Your task to perform on an android device: check the backup settings in the google photos Image 0: 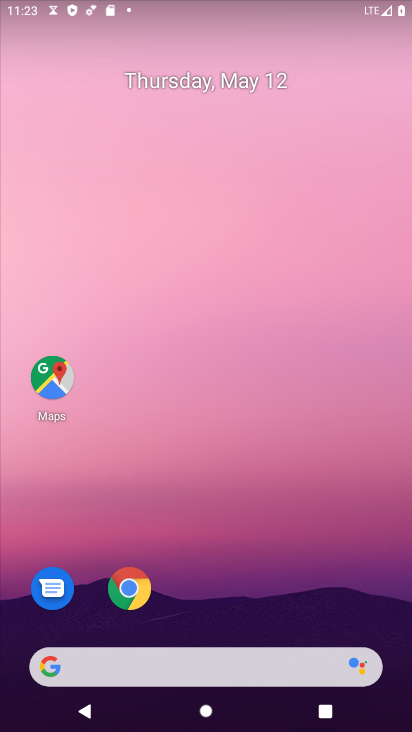
Step 0: drag from (211, 625) to (208, 364)
Your task to perform on an android device: check the backup settings in the google photos Image 1: 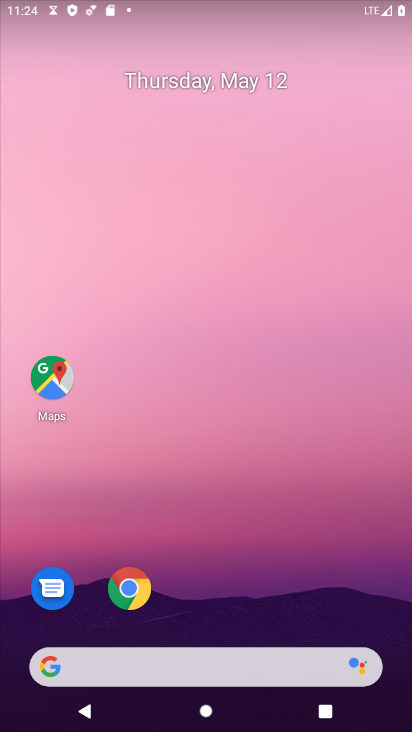
Step 1: drag from (210, 622) to (216, 159)
Your task to perform on an android device: check the backup settings in the google photos Image 2: 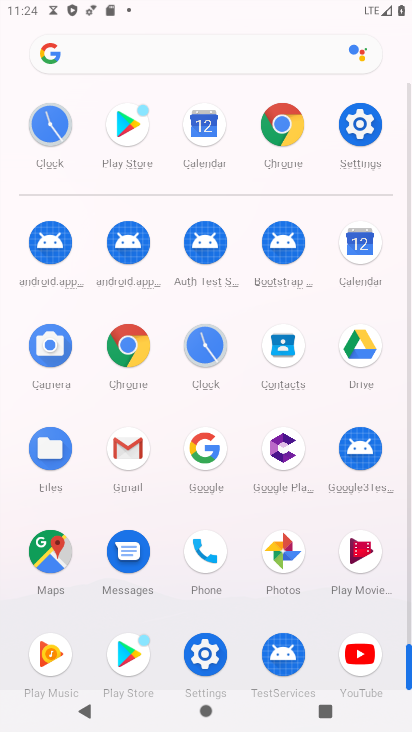
Step 2: click (275, 553)
Your task to perform on an android device: check the backup settings in the google photos Image 3: 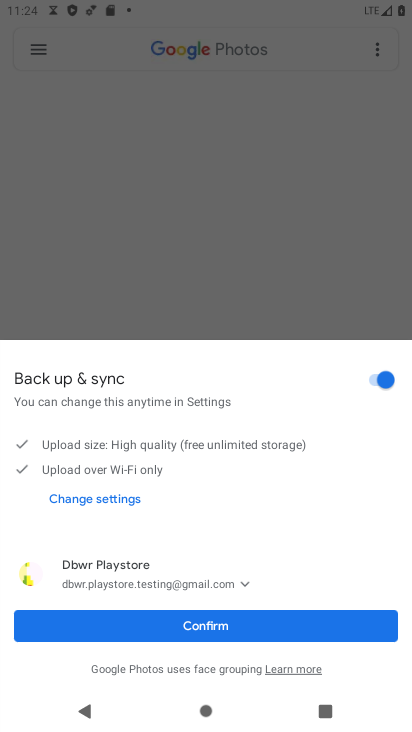
Step 3: click (190, 634)
Your task to perform on an android device: check the backup settings in the google photos Image 4: 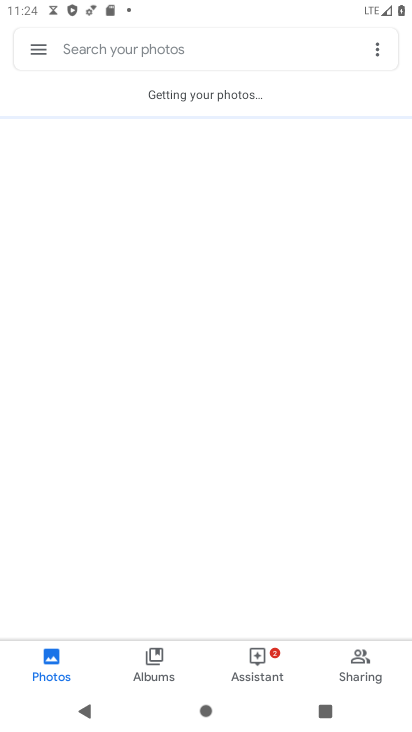
Step 4: click (40, 39)
Your task to perform on an android device: check the backup settings in the google photos Image 5: 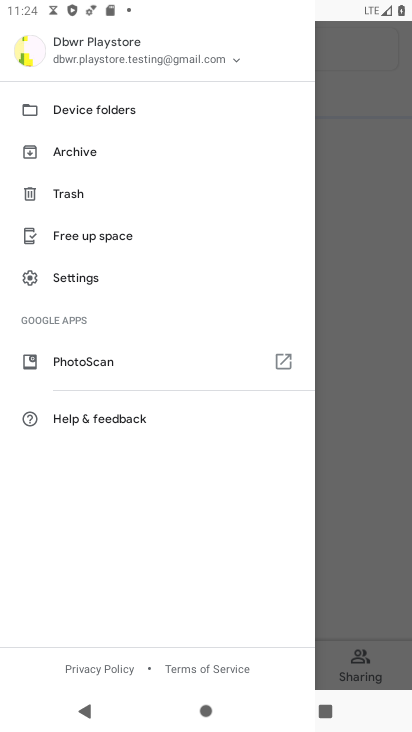
Step 5: click (88, 280)
Your task to perform on an android device: check the backup settings in the google photos Image 6: 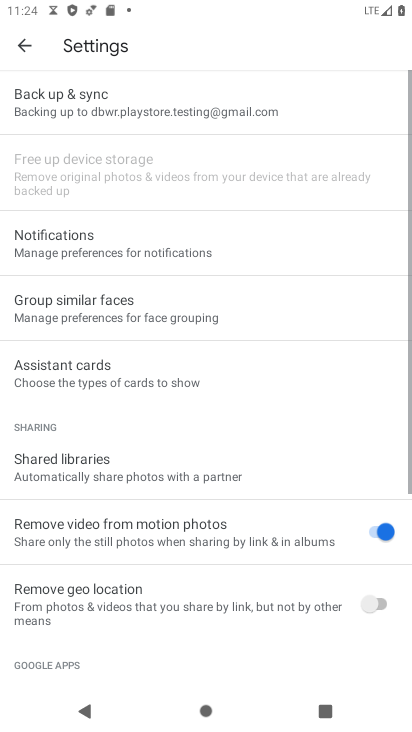
Step 6: drag from (175, 557) to (182, 330)
Your task to perform on an android device: check the backup settings in the google photos Image 7: 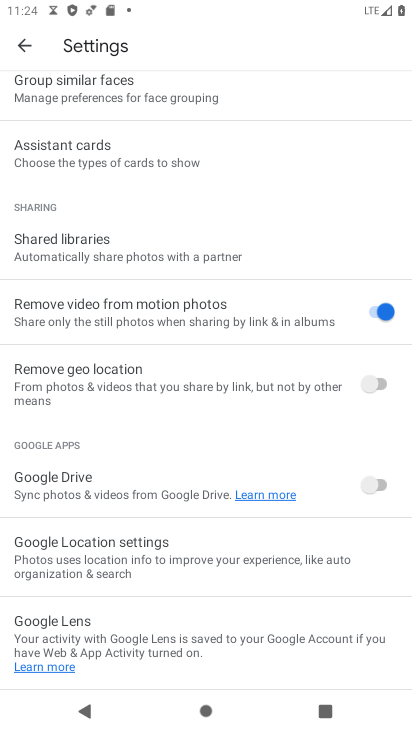
Step 7: drag from (167, 266) to (183, 600)
Your task to perform on an android device: check the backup settings in the google photos Image 8: 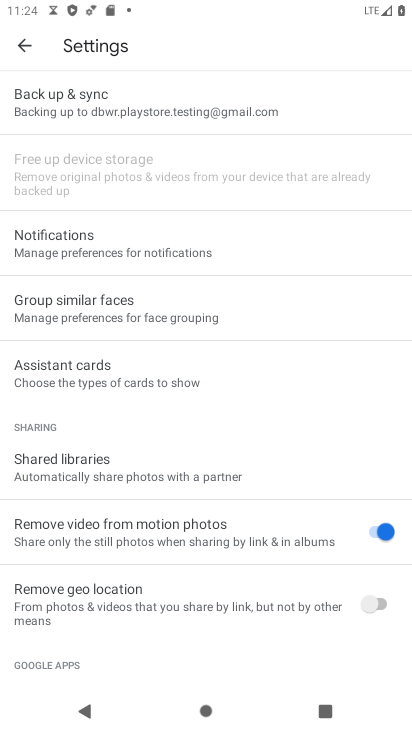
Step 8: drag from (171, 153) to (257, 565)
Your task to perform on an android device: check the backup settings in the google photos Image 9: 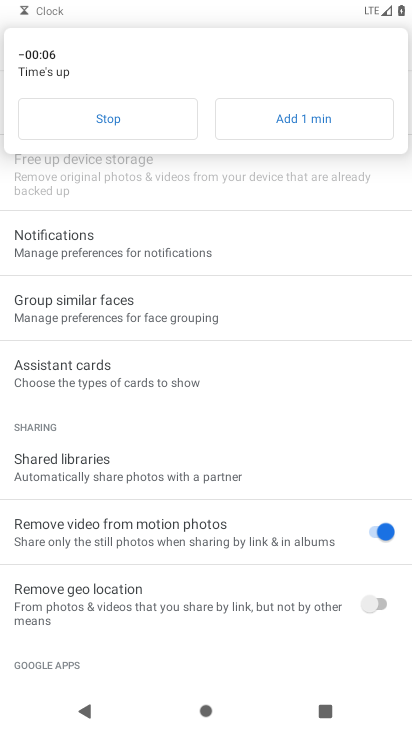
Step 9: click (85, 123)
Your task to perform on an android device: check the backup settings in the google photos Image 10: 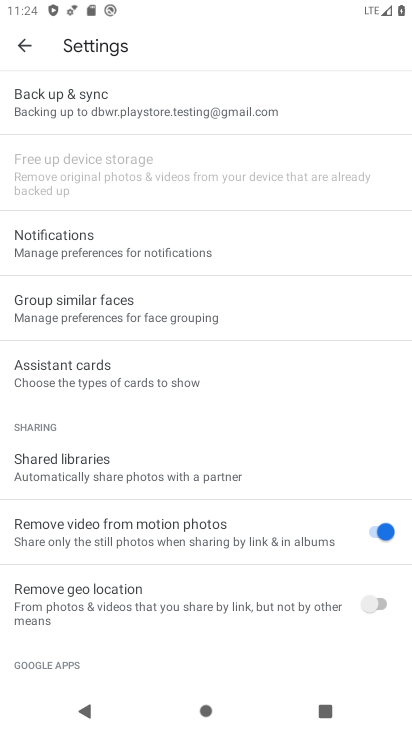
Step 10: click (137, 107)
Your task to perform on an android device: check the backup settings in the google photos Image 11: 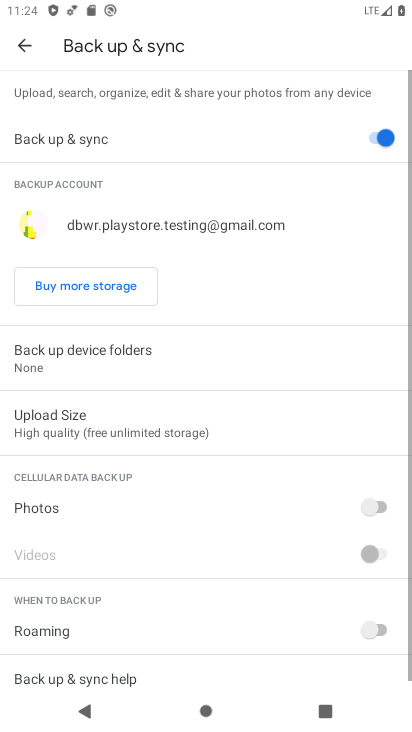
Step 11: task complete